Your task to perform on an android device: install app "Fetch Rewards" Image 0: 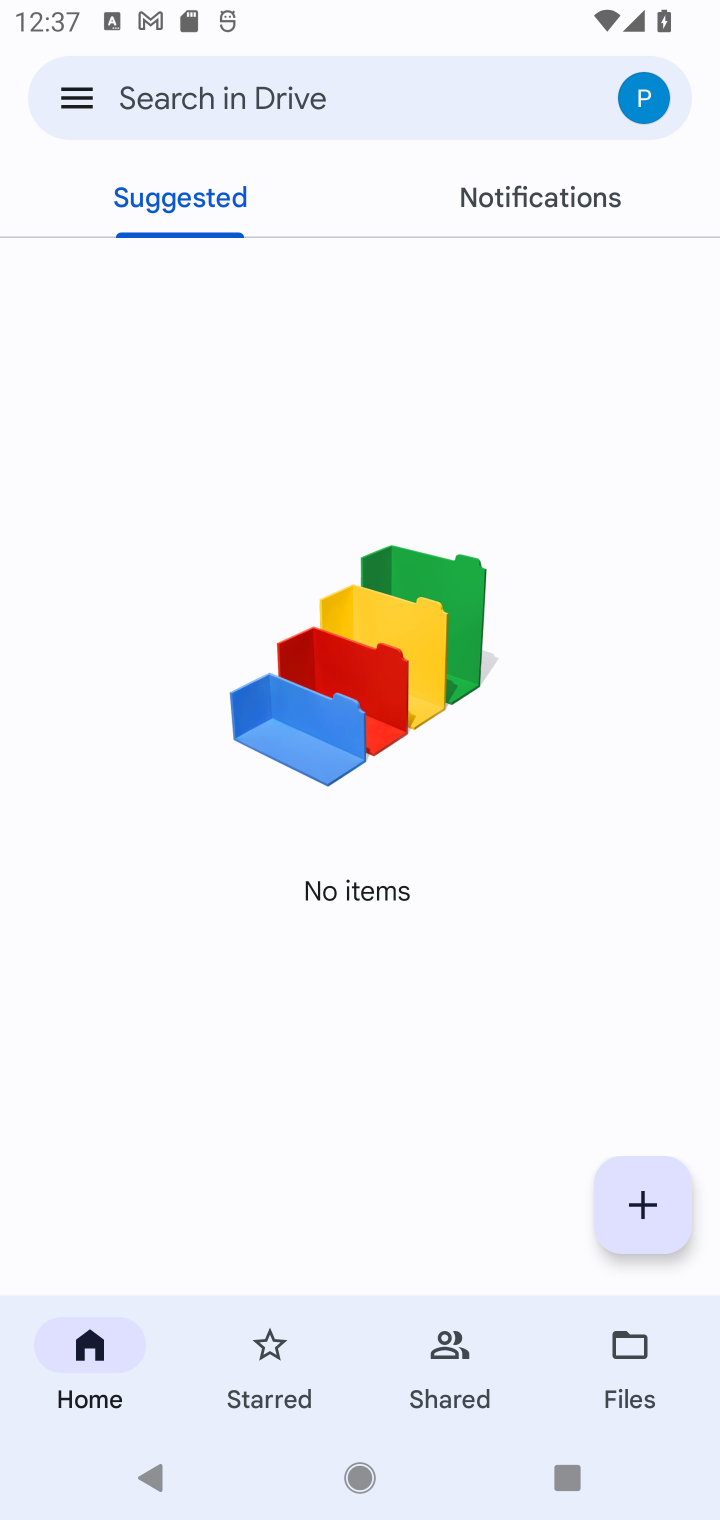
Step 0: click (137, 1199)
Your task to perform on an android device: install app "Fetch Rewards" Image 1: 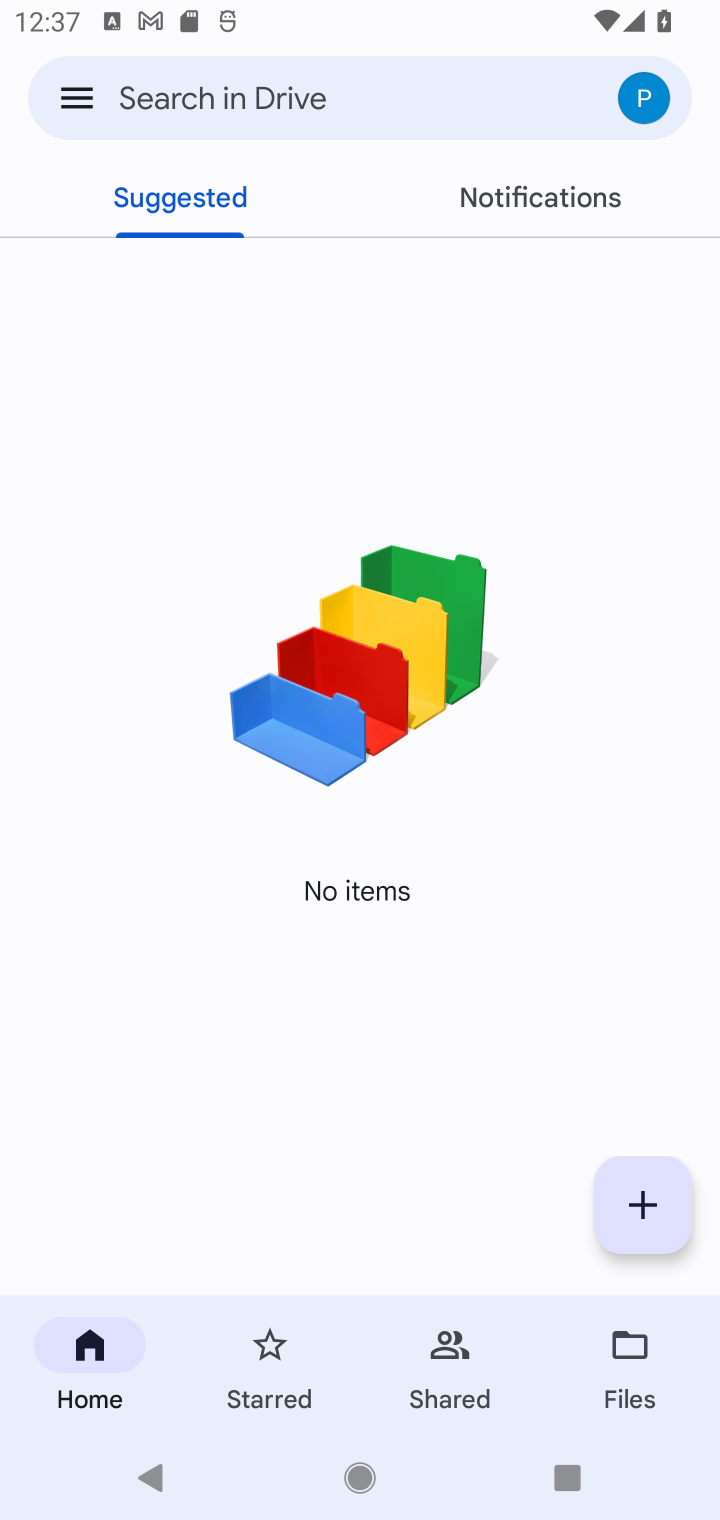
Step 1: press back button
Your task to perform on an android device: install app "Fetch Rewards" Image 2: 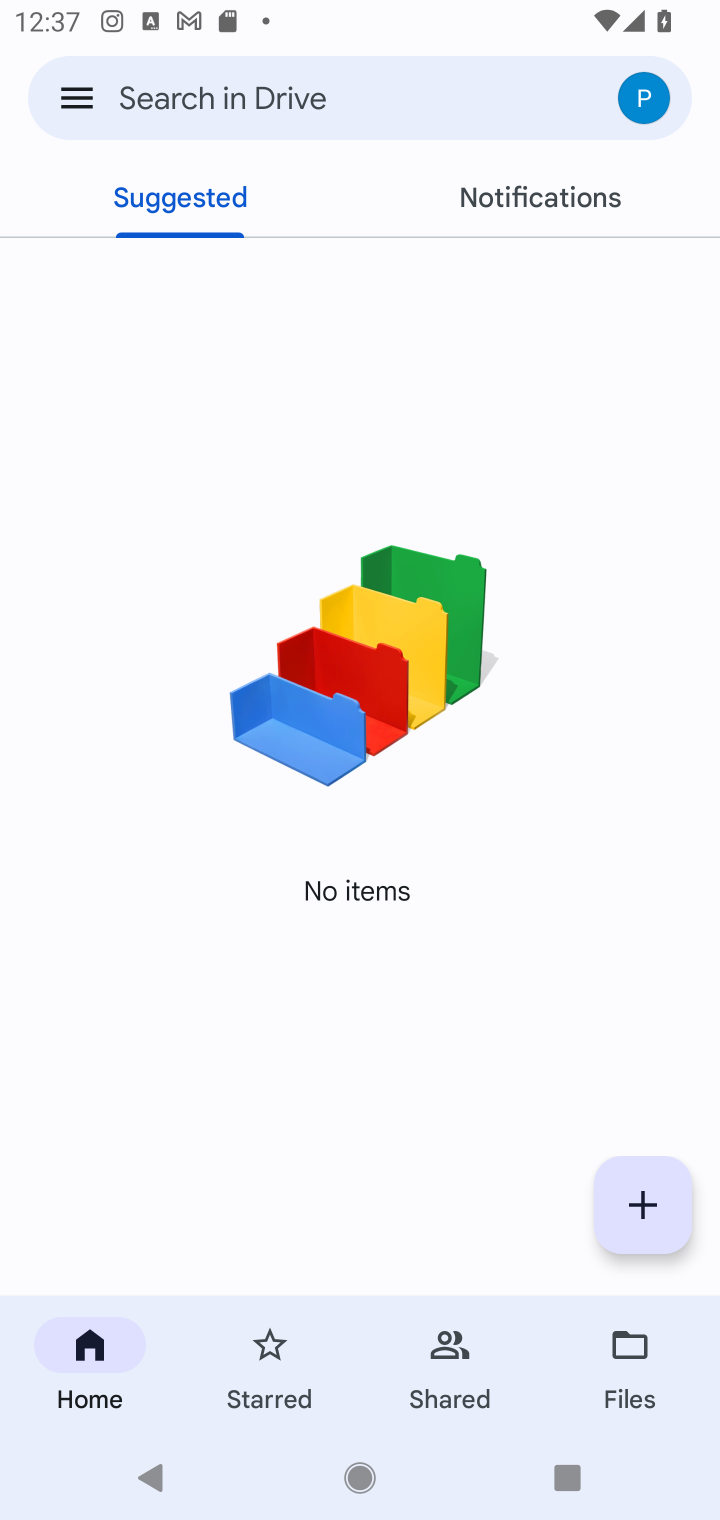
Step 2: press home button
Your task to perform on an android device: install app "Fetch Rewards" Image 3: 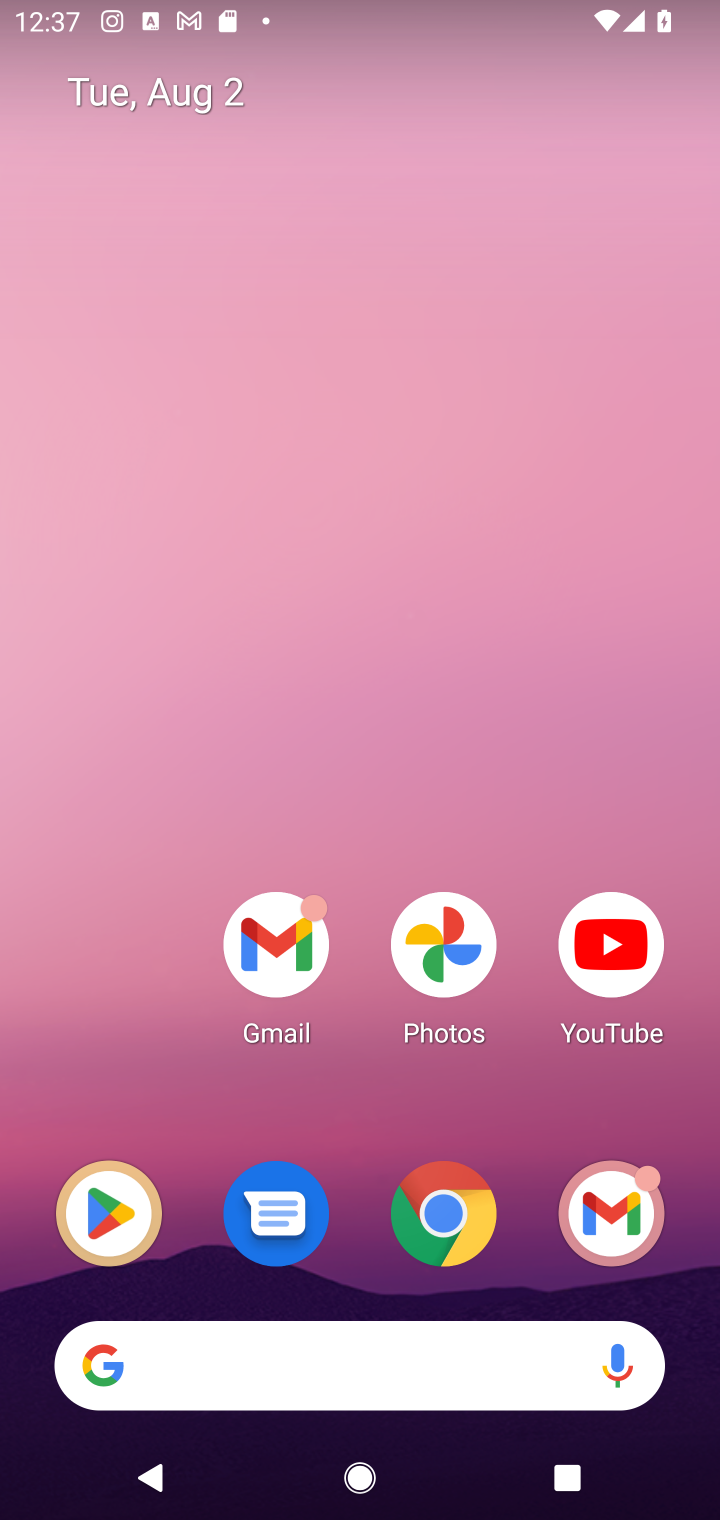
Step 3: click (86, 1217)
Your task to perform on an android device: install app "Fetch Rewards" Image 4: 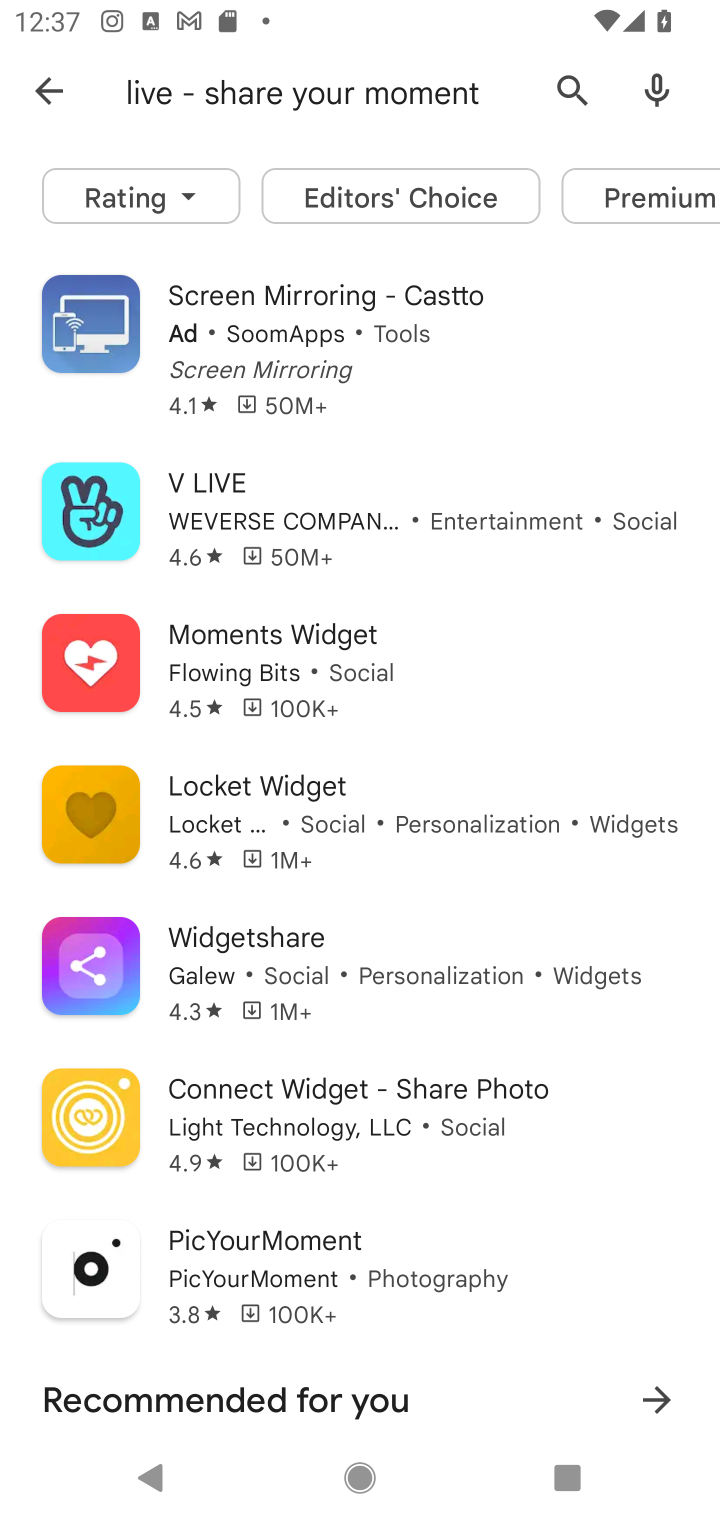
Step 4: click (43, 86)
Your task to perform on an android device: install app "Fetch Rewards" Image 5: 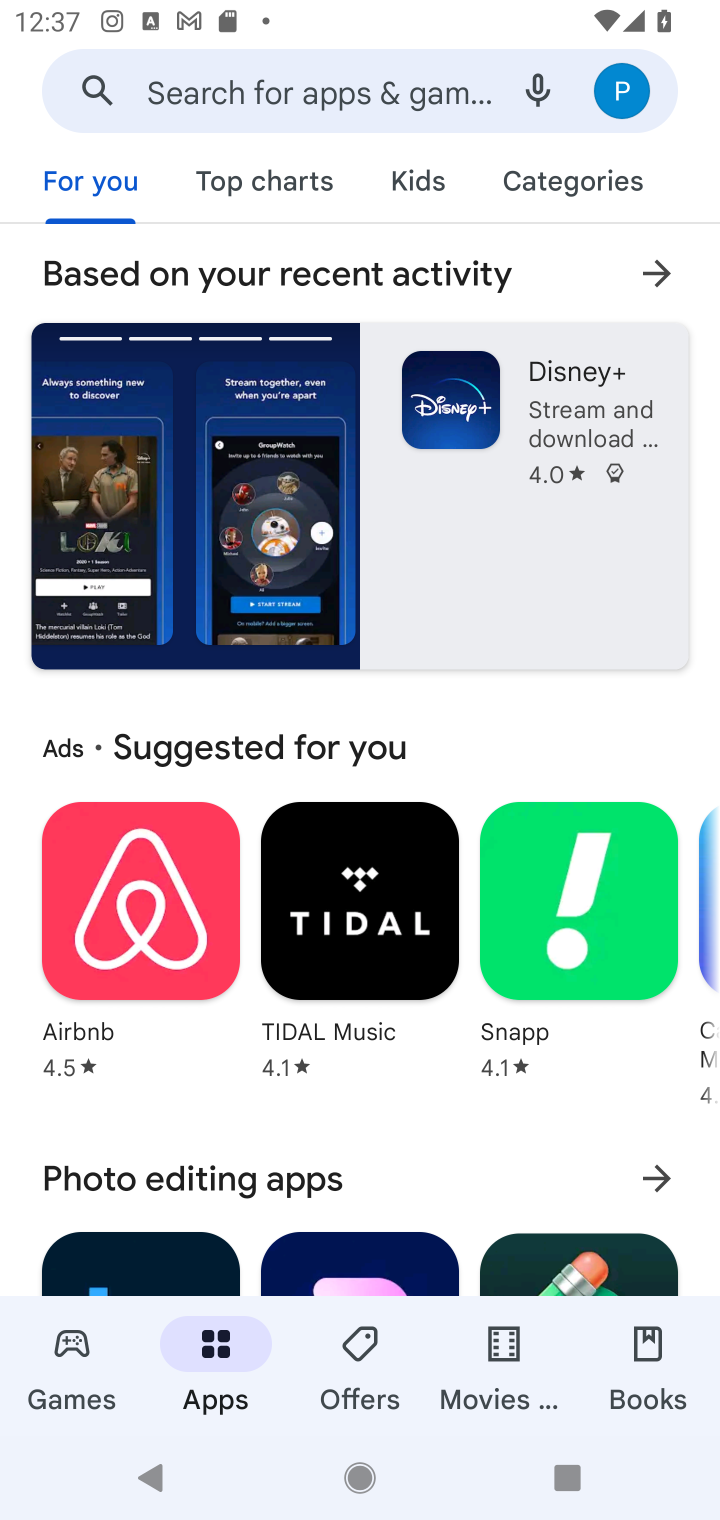
Step 5: click (329, 89)
Your task to perform on an android device: install app "Fetch Rewards" Image 6: 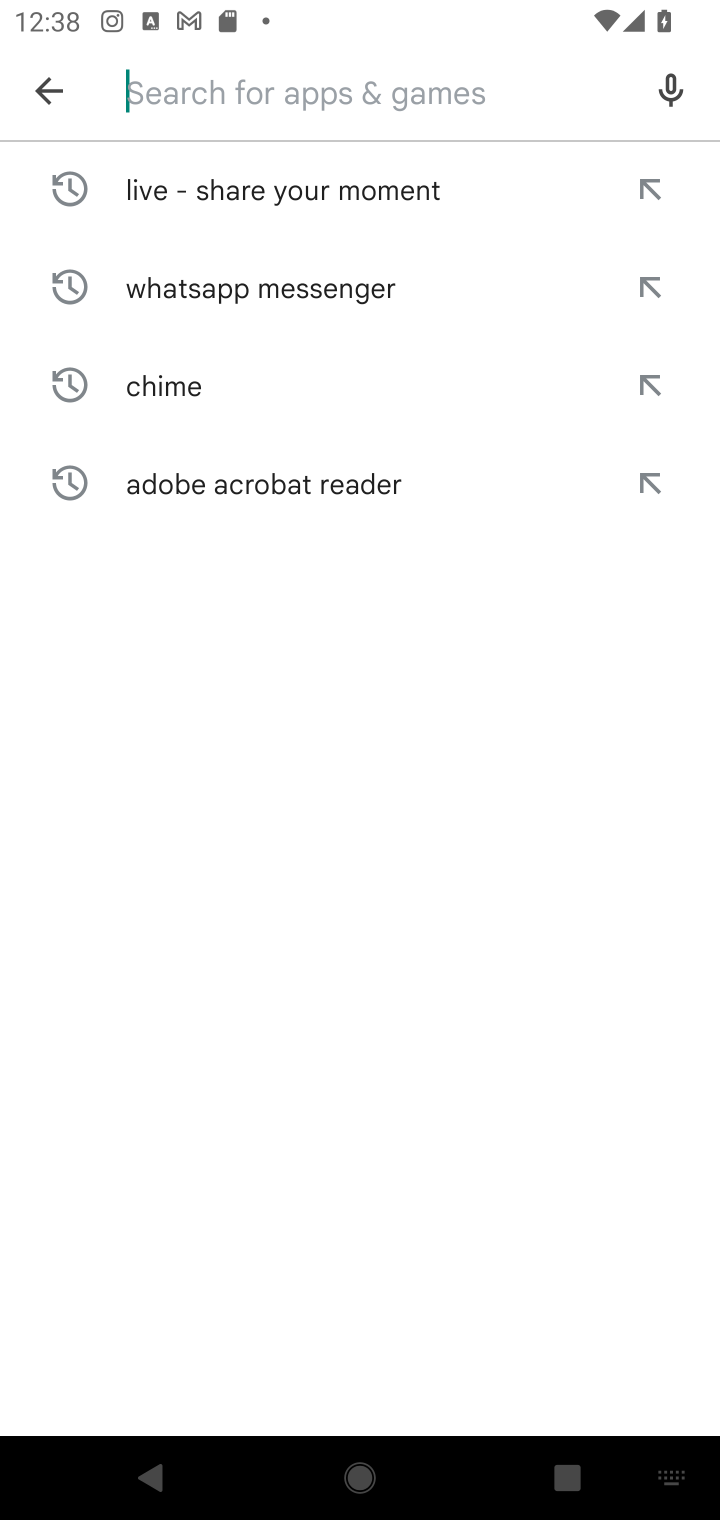
Step 6: type "Fetch Rewards"
Your task to perform on an android device: install app "Fetch Rewards" Image 7: 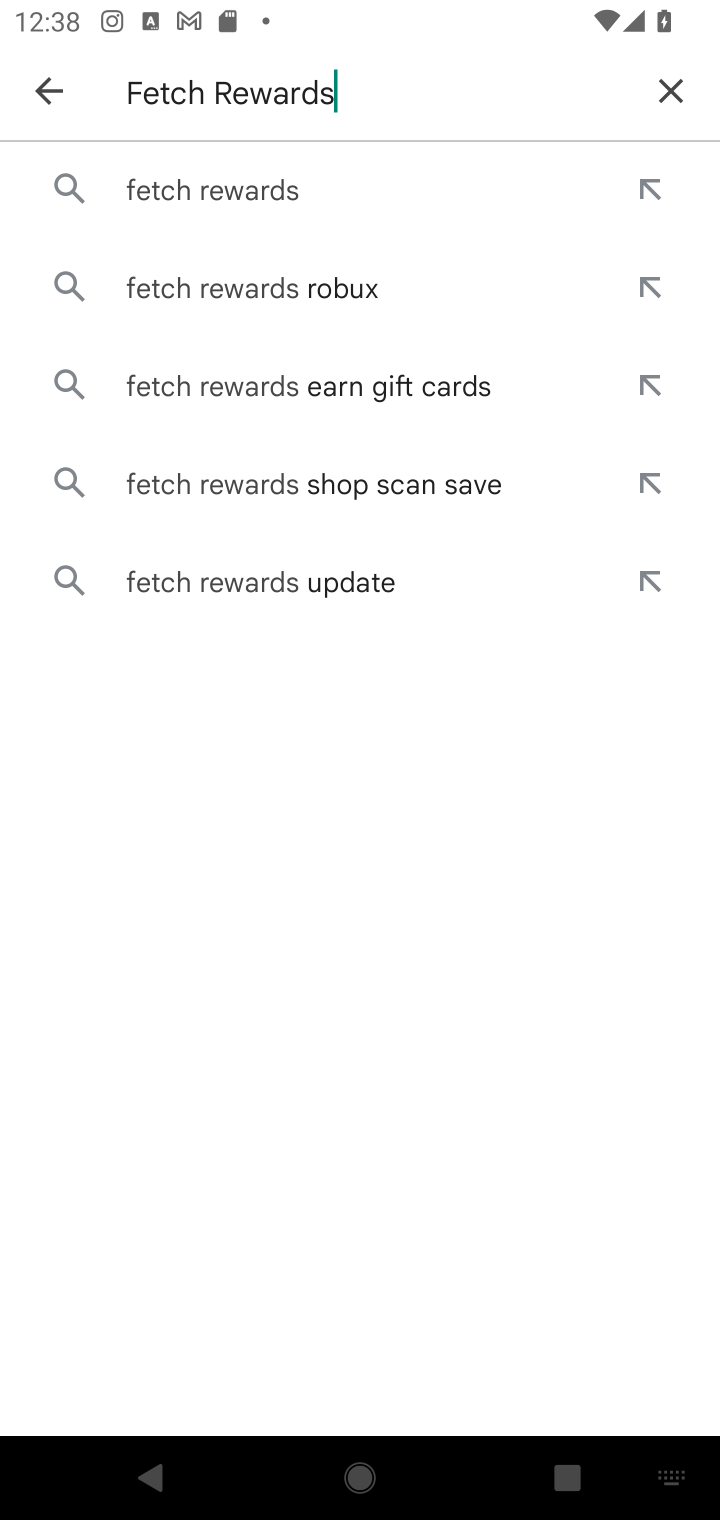
Step 7: click (263, 192)
Your task to perform on an android device: install app "Fetch Rewards" Image 8: 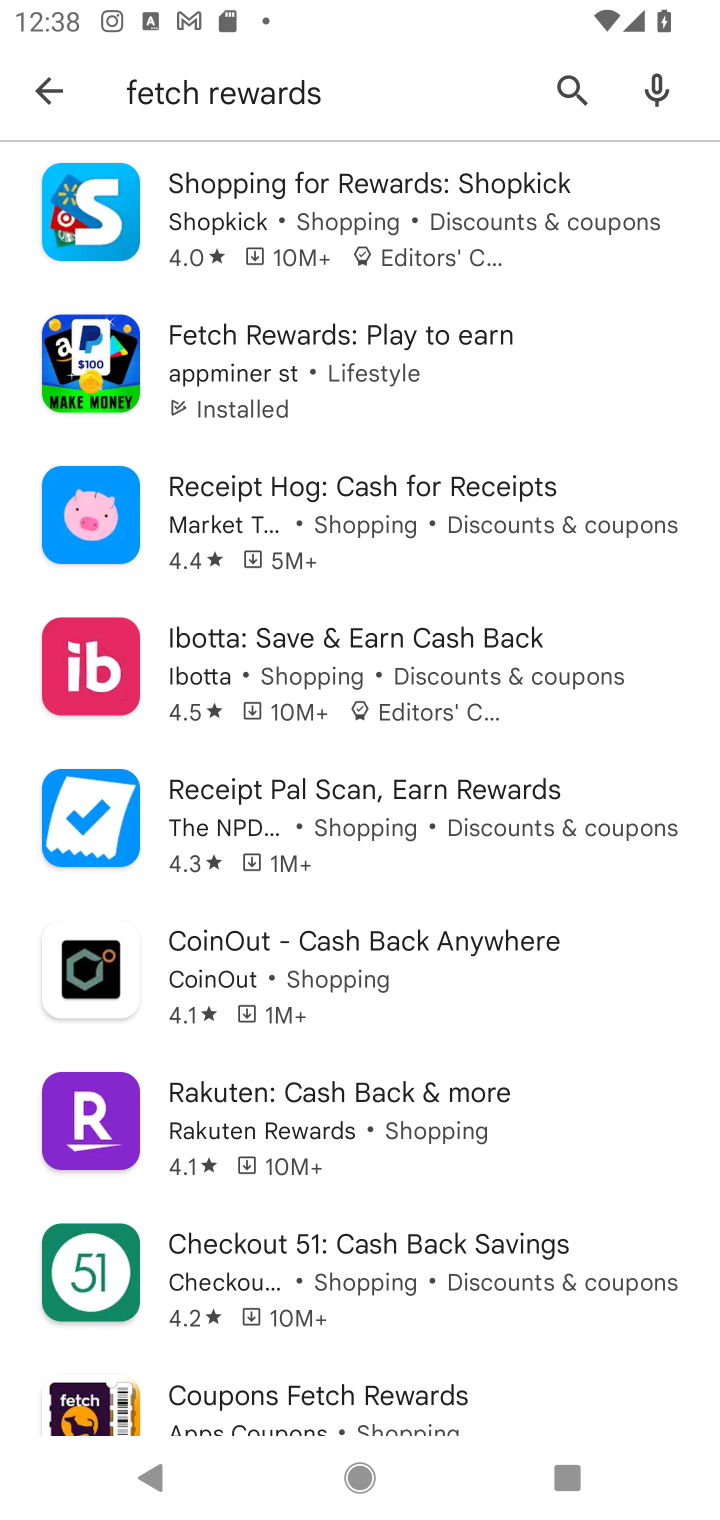
Step 8: click (217, 348)
Your task to perform on an android device: install app "Fetch Rewards" Image 9: 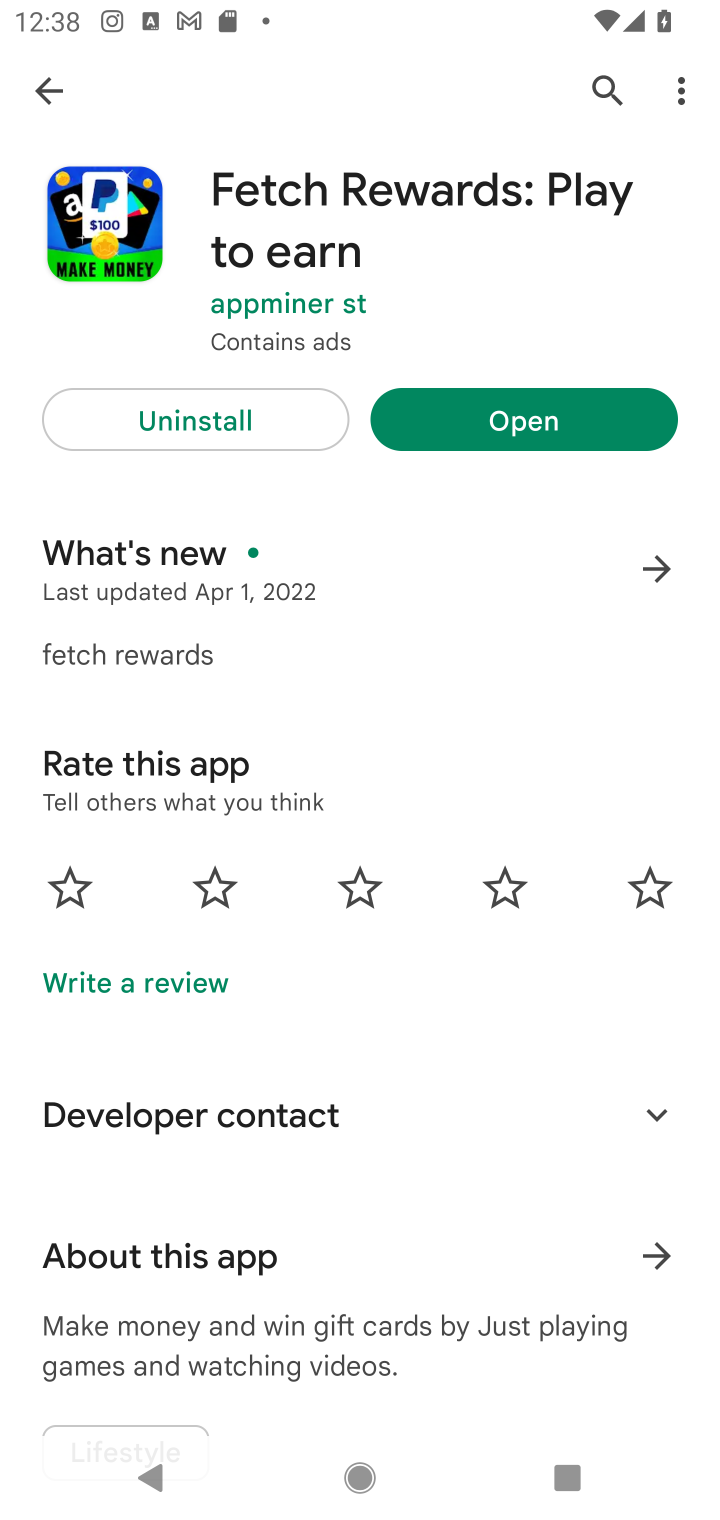
Step 9: click (540, 430)
Your task to perform on an android device: install app "Fetch Rewards" Image 10: 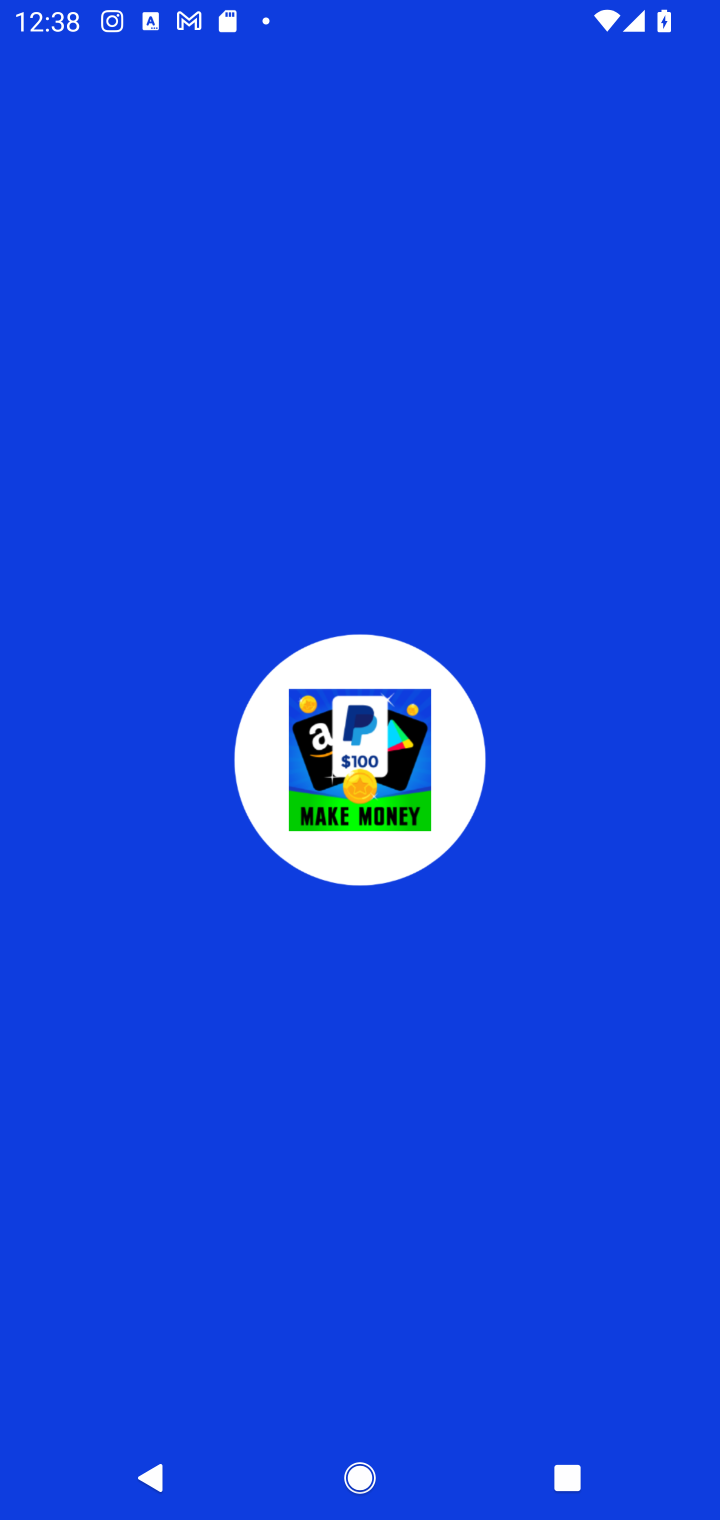
Step 10: task complete